Your task to perform on an android device: Show me popular games on the Play Store Image 0: 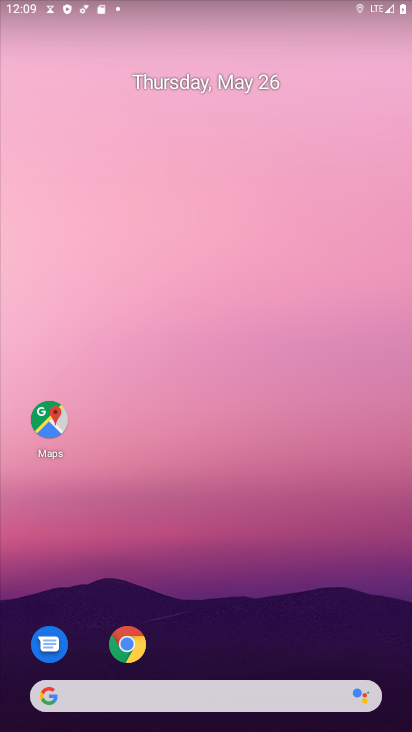
Step 0: drag from (283, 557) to (280, 57)
Your task to perform on an android device: Show me popular games on the Play Store Image 1: 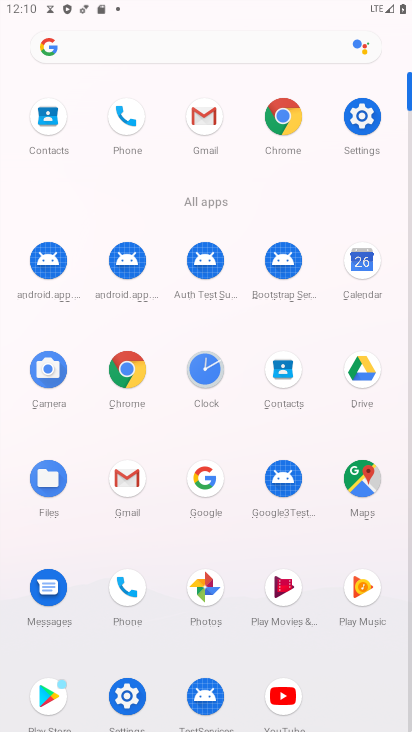
Step 1: click (49, 696)
Your task to perform on an android device: Show me popular games on the Play Store Image 2: 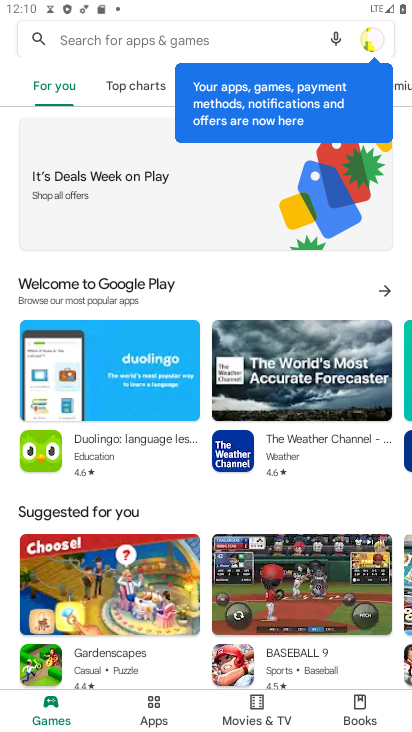
Step 2: click (232, 34)
Your task to perform on an android device: Show me popular games on the Play Store Image 3: 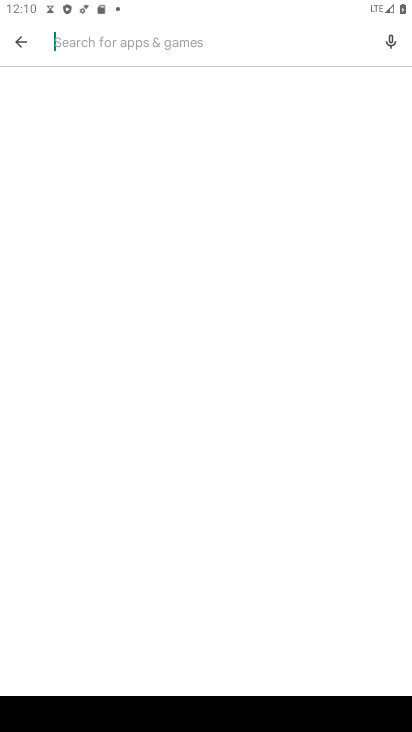
Step 3: type "popular games"
Your task to perform on an android device: Show me popular games on the Play Store Image 4: 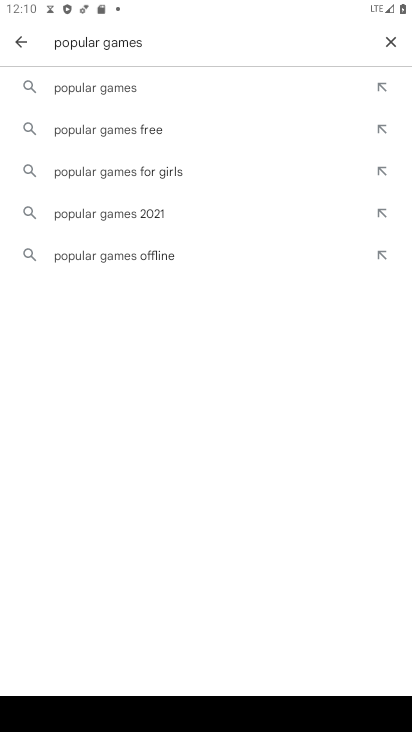
Step 4: click (108, 88)
Your task to perform on an android device: Show me popular games on the Play Store Image 5: 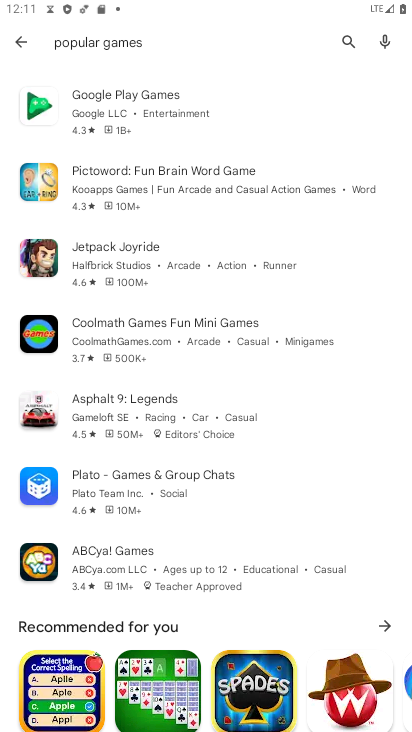
Step 5: task complete